Your task to perform on an android device: turn on showing notifications on the lock screen Image 0: 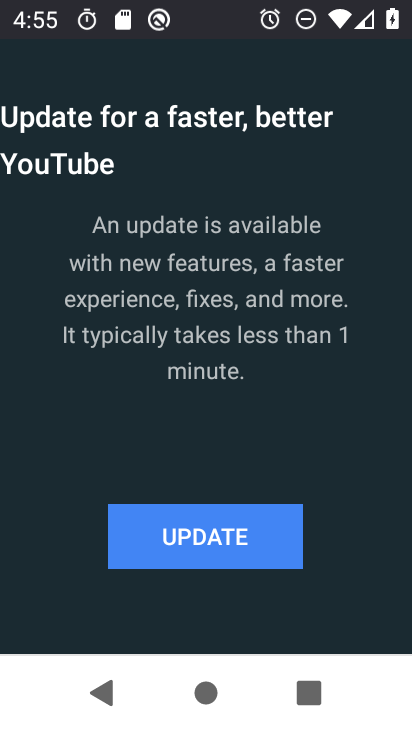
Step 0: drag from (308, 570) to (273, 236)
Your task to perform on an android device: turn on showing notifications on the lock screen Image 1: 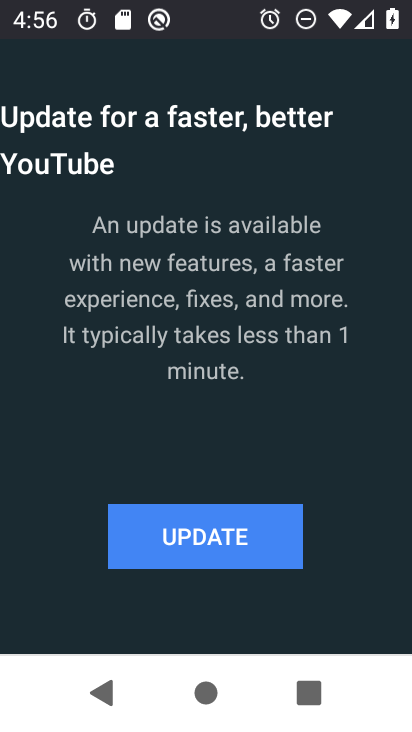
Step 1: press home button
Your task to perform on an android device: turn on showing notifications on the lock screen Image 2: 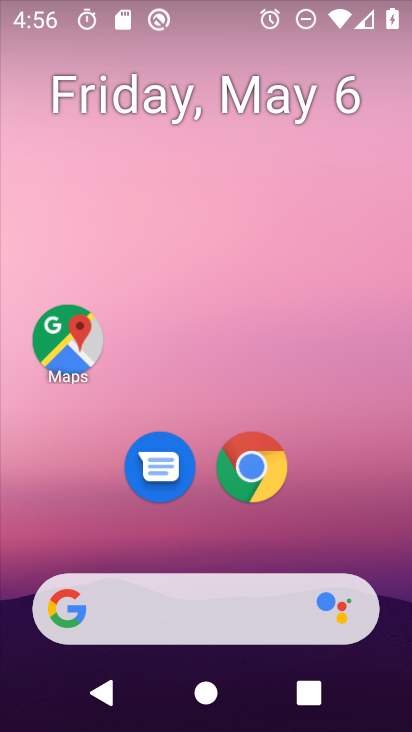
Step 2: drag from (271, 530) to (259, 202)
Your task to perform on an android device: turn on showing notifications on the lock screen Image 3: 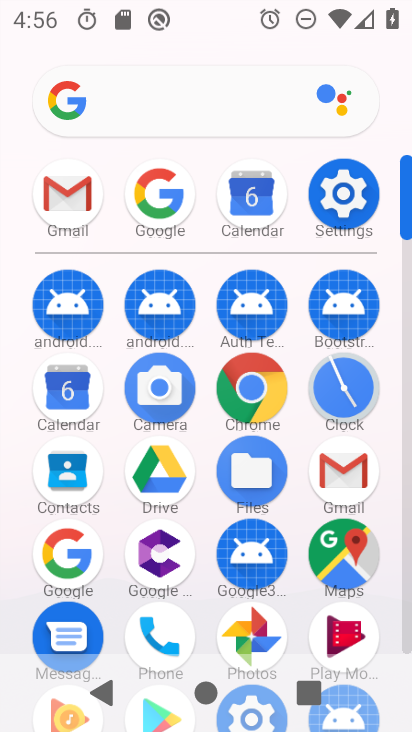
Step 3: click (344, 195)
Your task to perform on an android device: turn on showing notifications on the lock screen Image 4: 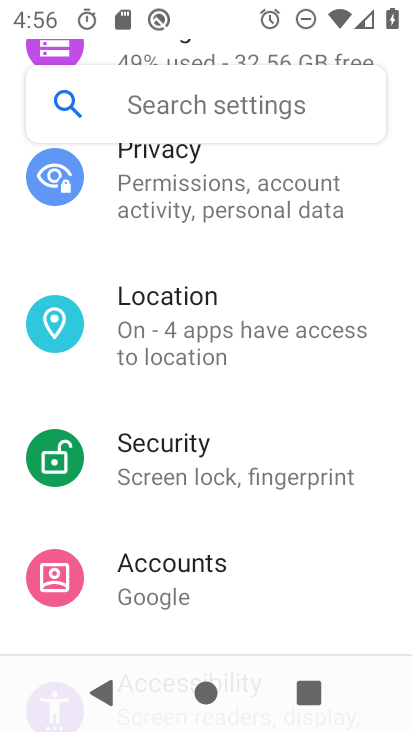
Step 4: drag from (265, 269) to (209, 617)
Your task to perform on an android device: turn on showing notifications on the lock screen Image 5: 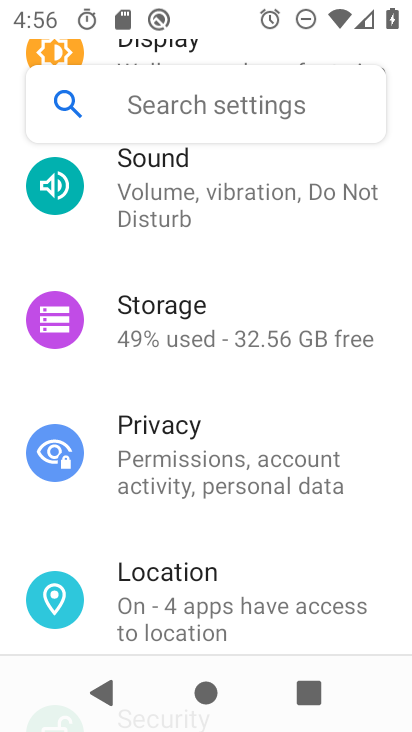
Step 5: drag from (208, 234) to (140, 665)
Your task to perform on an android device: turn on showing notifications on the lock screen Image 6: 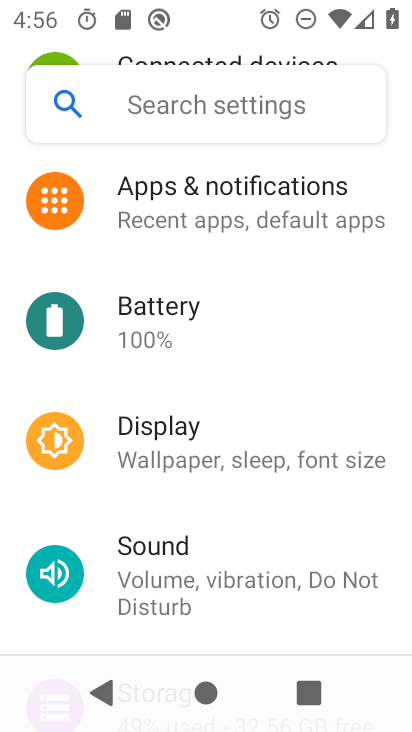
Step 6: click (207, 225)
Your task to perform on an android device: turn on showing notifications on the lock screen Image 7: 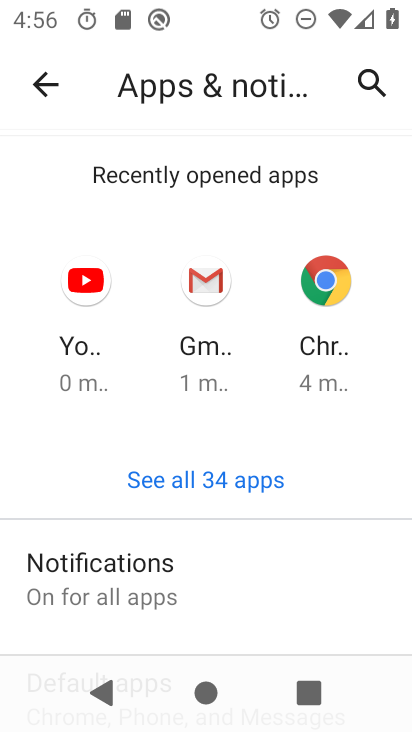
Step 7: drag from (238, 608) to (270, 238)
Your task to perform on an android device: turn on showing notifications on the lock screen Image 8: 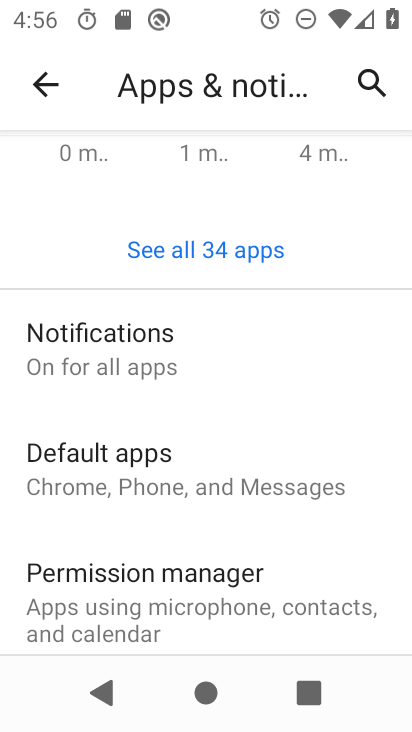
Step 8: click (93, 383)
Your task to perform on an android device: turn on showing notifications on the lock screen Image 9: 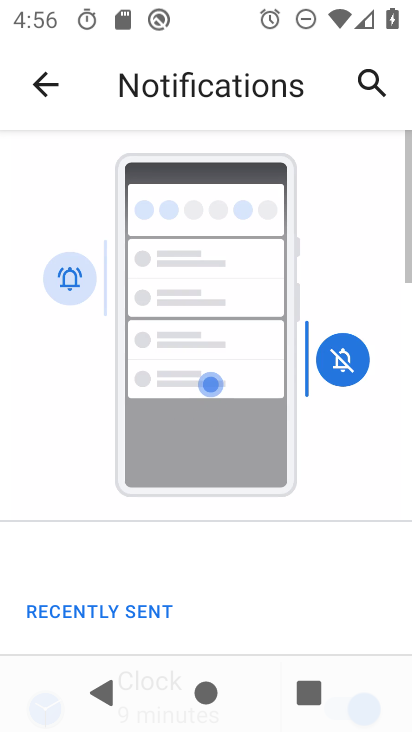
Step 9: drag from (165, 581) to (237, 208)
Your task to perform on an android device: turn on showing notifications on the lock screen Image 10: 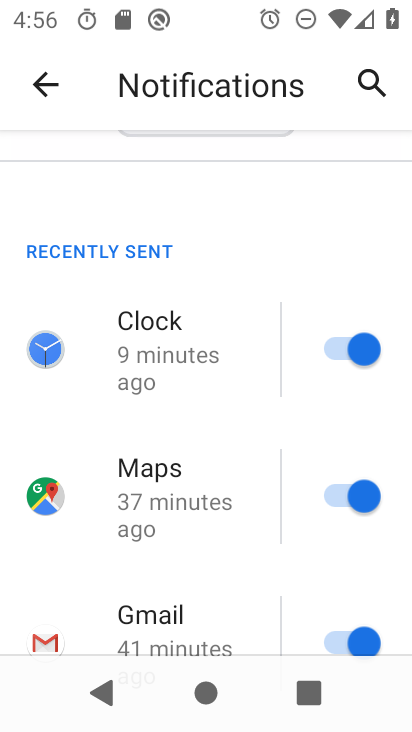
Step 10: drag from (199, 586) to (317, 55)
Your task to perform on an android device: turn on showing notifications on the lock screen Image 11: 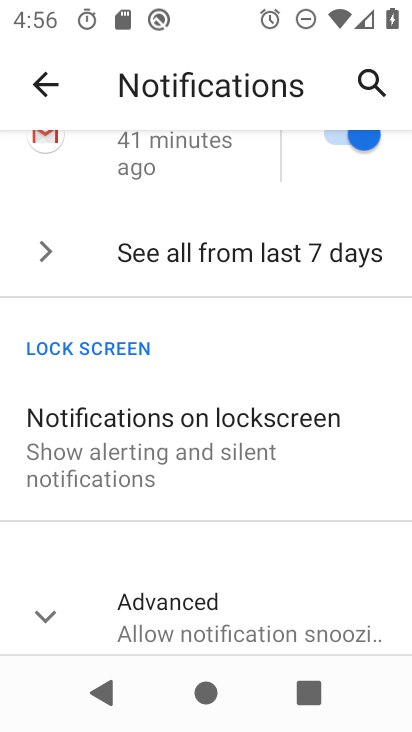
Step 11: click (189, 415)
Your task to perform on an android device: turn on showing notifications on the lock screen Image 12: 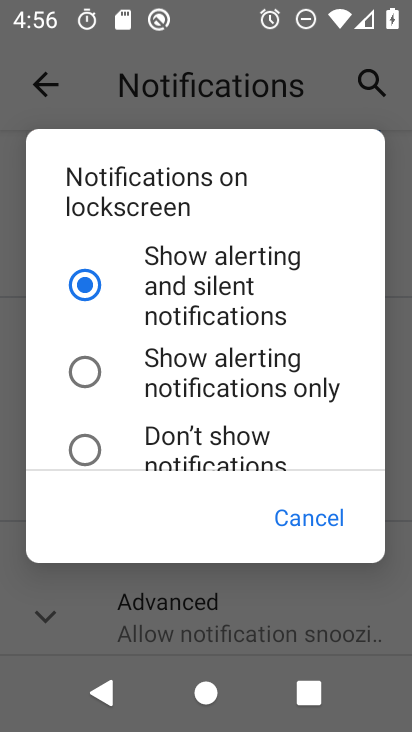
Step 12: task complete